Your task to perform on an android device: change notifications settings Image 0: 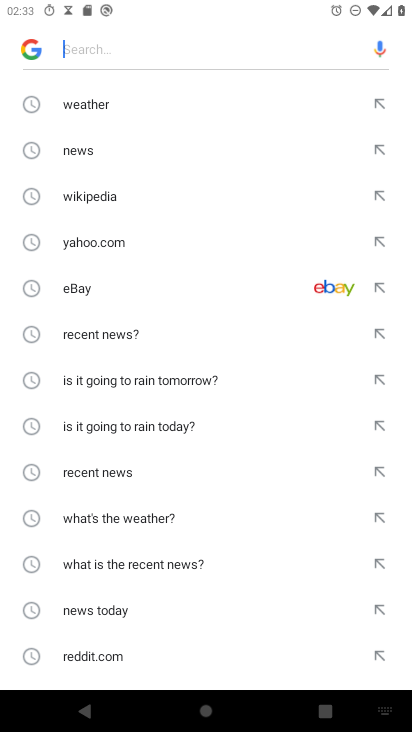
Step 0: press home button
Your task to perform on an android device: change notifications settings Image 1: 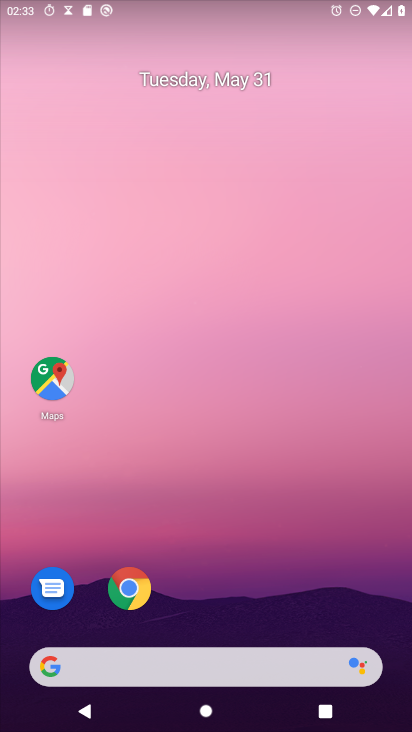
Step 1: drag from (134, 691) to (152, 87)
Your task to perform on an android device: change notifications settings Image 2: 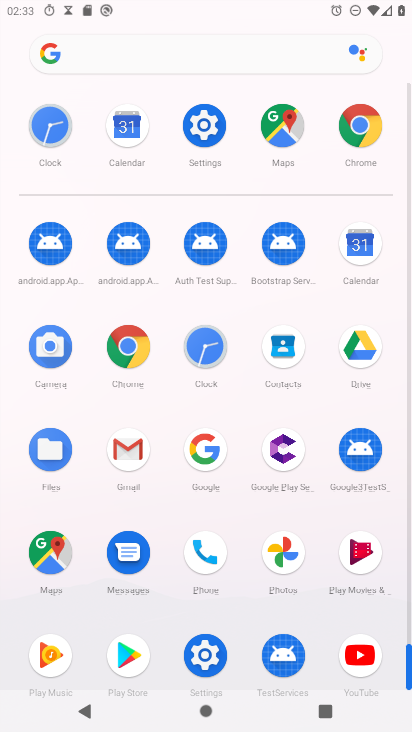
Step 2: click (214, 120)
Your task to perform on an android device: change notifications settings Image 3: 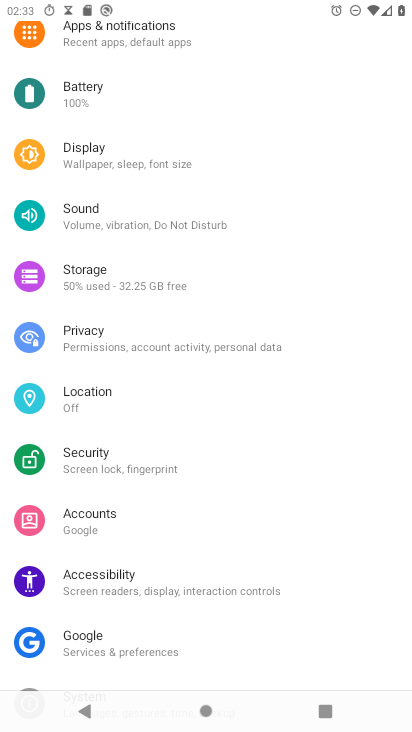
Step 3: click (184, 23)
Your task to perform on an android device: change notifications settings Image 4: 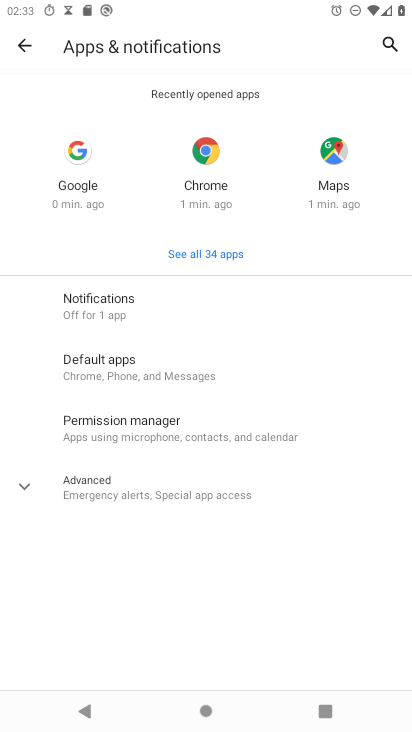
Step 4: click (196, 310)
Your task to perform on an android device: change notifications settings Image 5: 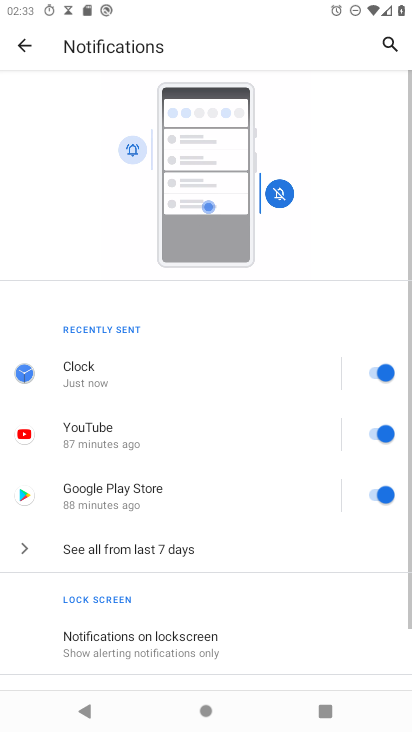
Step 5: click (378, 367)
Your task to perform on an android device: change notifications settings Image 6: 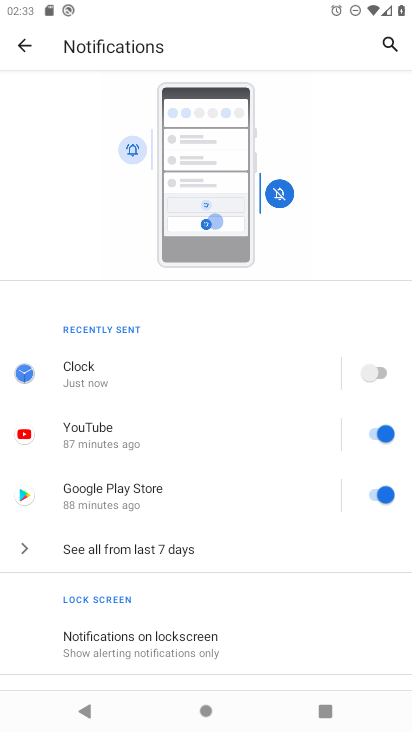
Step 6: task complete